Your task to perform on an android device: turn off smart reply in the gmail app Image 0: 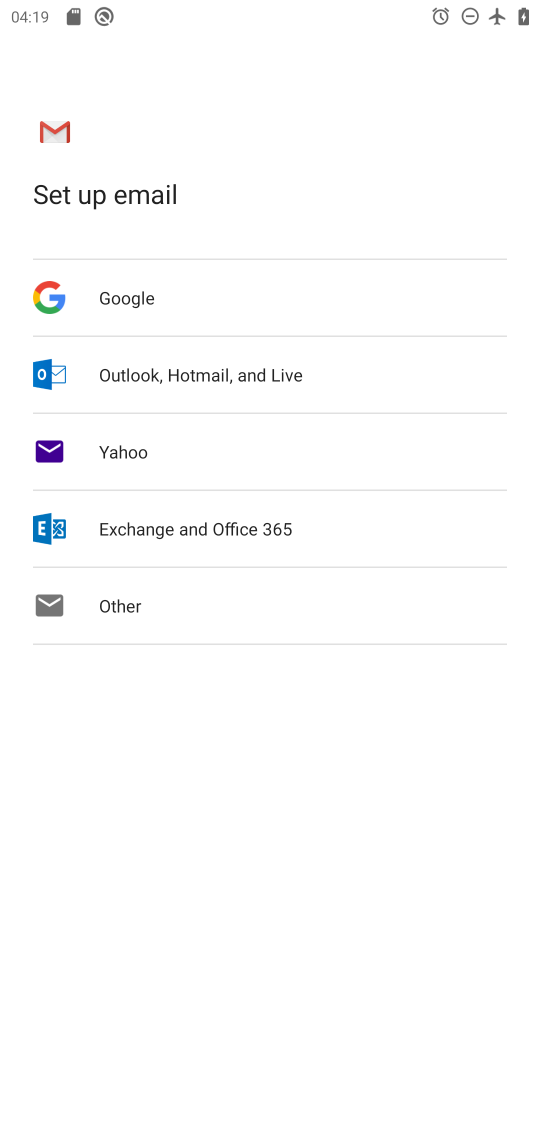
Step 0: press home button
Your task to perform on an android device: turn off smart reply in the gmail app Image 1: 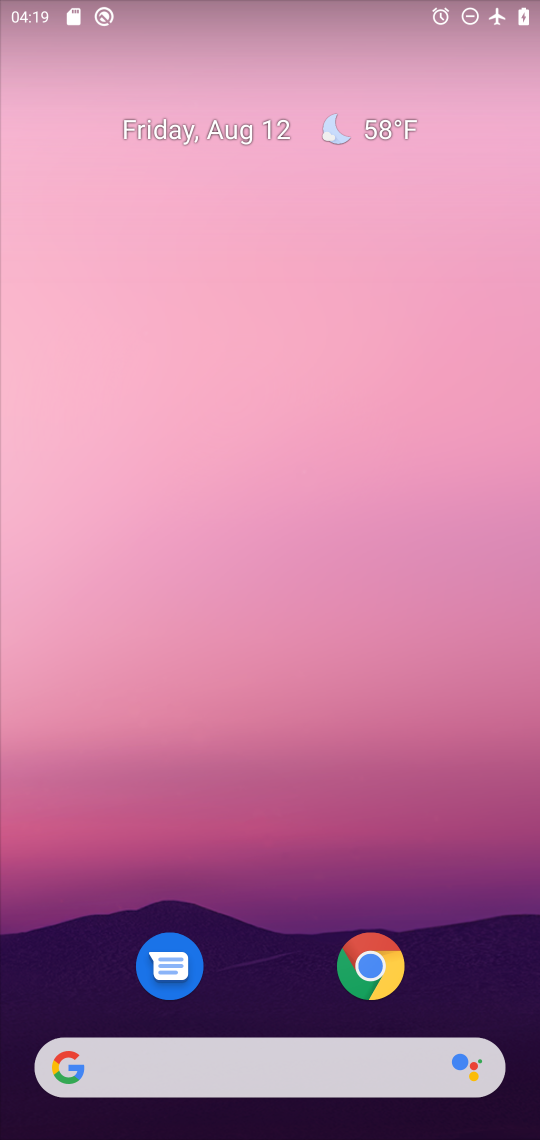
Step 1: drag from (252, 930) to (365, 110)
Your task to perform on an android device: turn off smart reply in the gmail app Image 2: 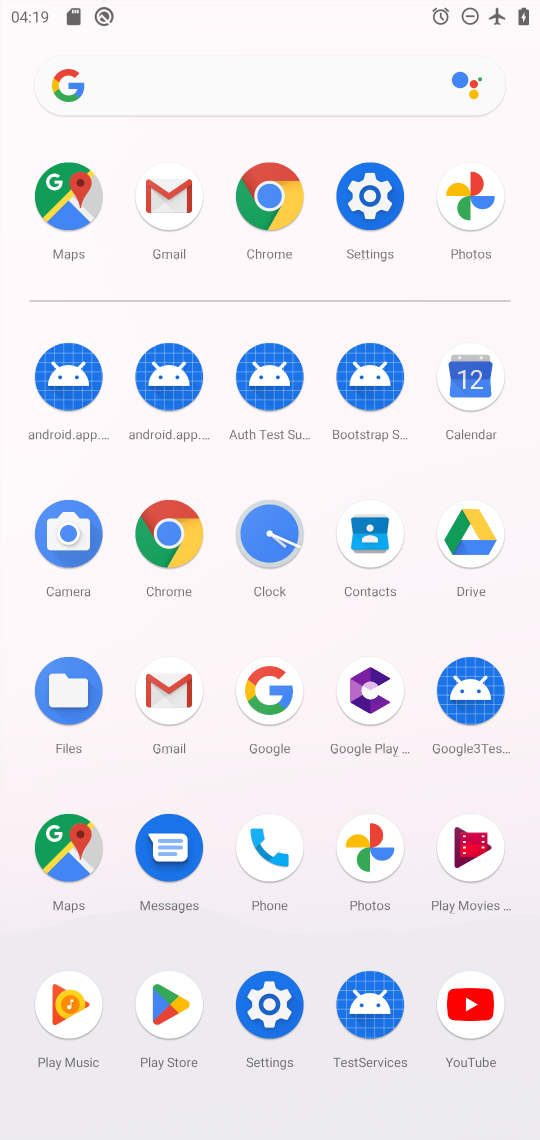
Step 2: click (165, 693)
Your task to perform on an android device: turn off smart reply in the gmail app Image 3: 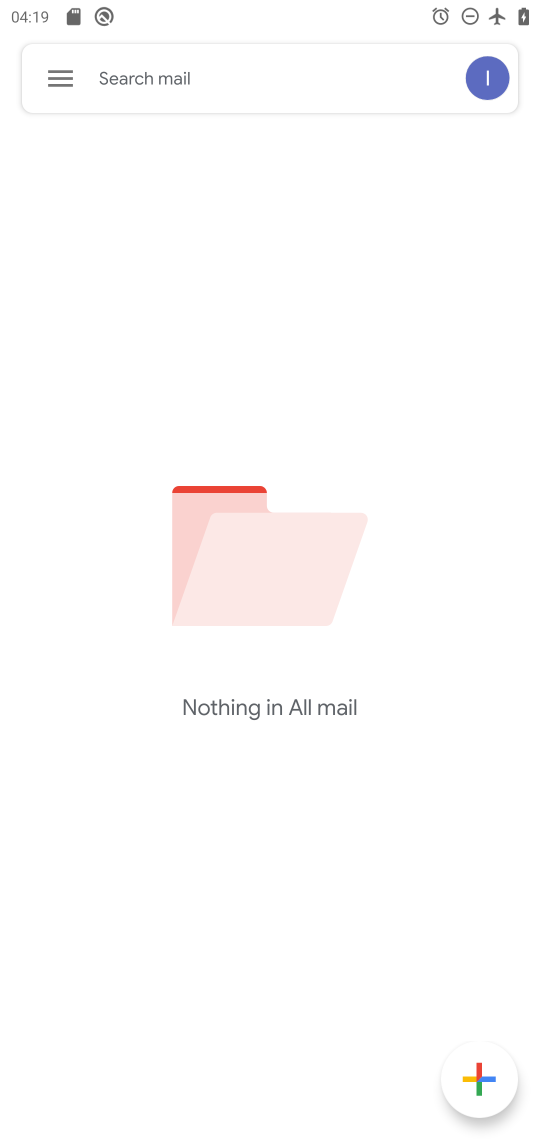
Step 3: click (60, 85)
Your task to perform on an android device: turn off smart reply in the gmail app Image 4: 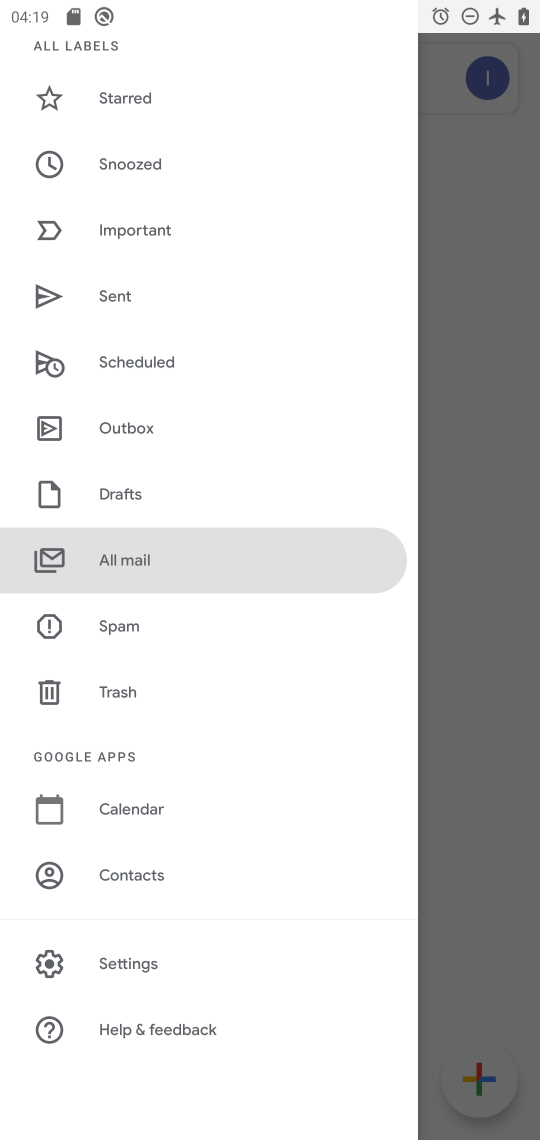
Step 4: click (146, 959)
Your task to perform on an android device: turn off smart reply in the gmail app Image 5: 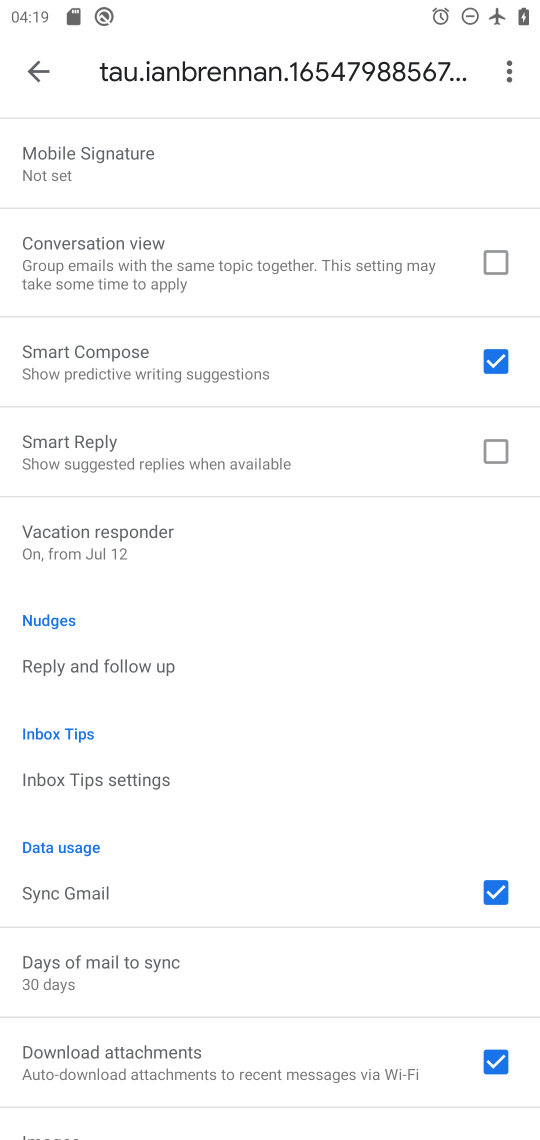
Step 5: task complete